Your task to perform on an android device: open app "Paramount+ | Peak Streaming" (install if not already installed) Image 0: 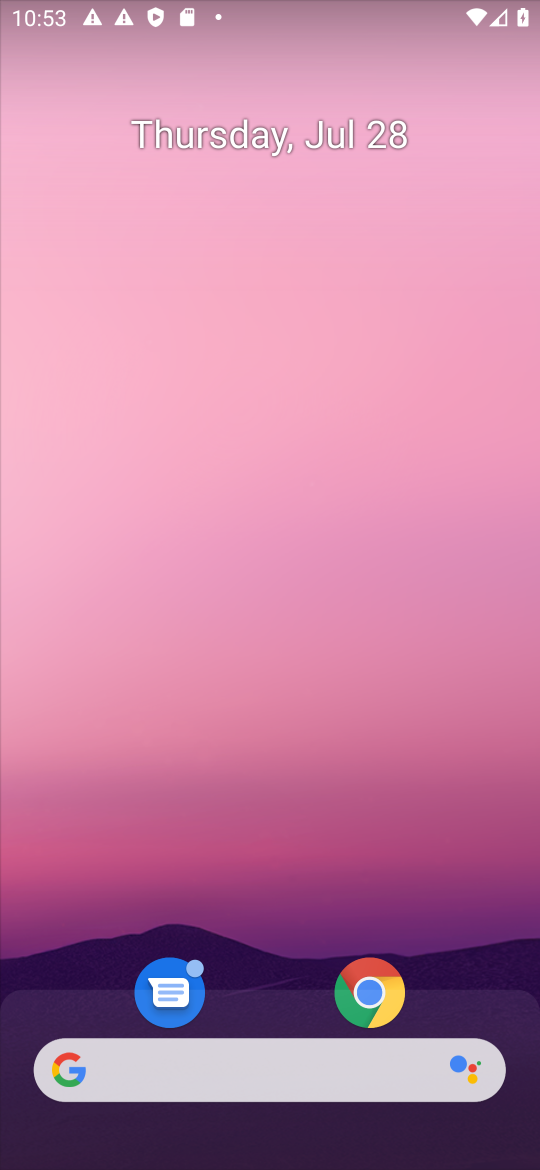
Step 0: drag from (203, 1077) to (310, 2)
Your task to perform on an android device: open app "Paramount+ | Peak Streaming" (install if not already installed) Image 1: 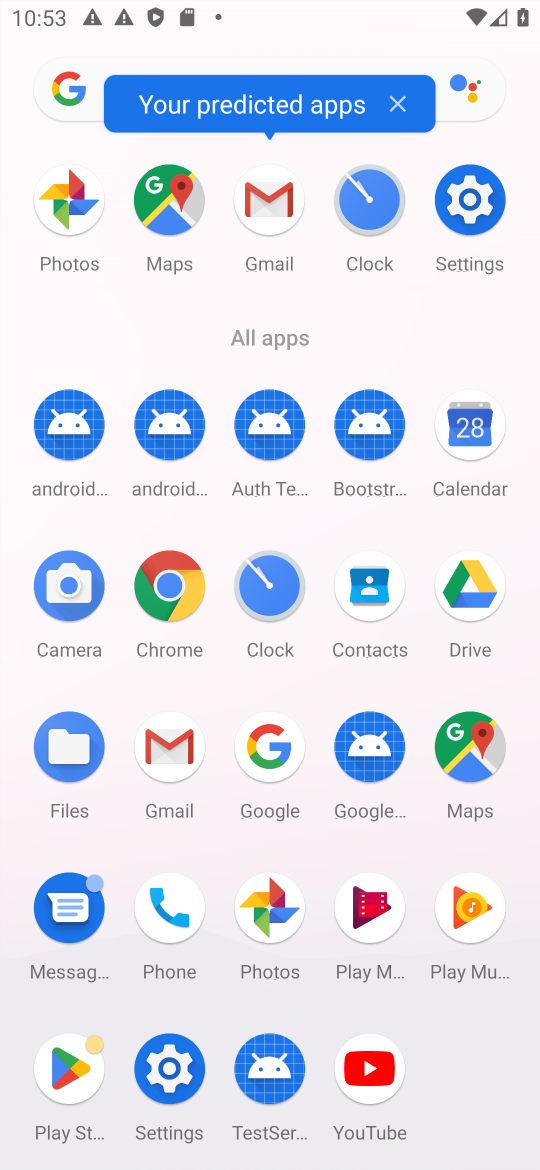
Step 1: click (69, 1076)
Your task to perform on an android device: open app "Paramount+ | Peak Streaming" (install if not already installed) Image 2: 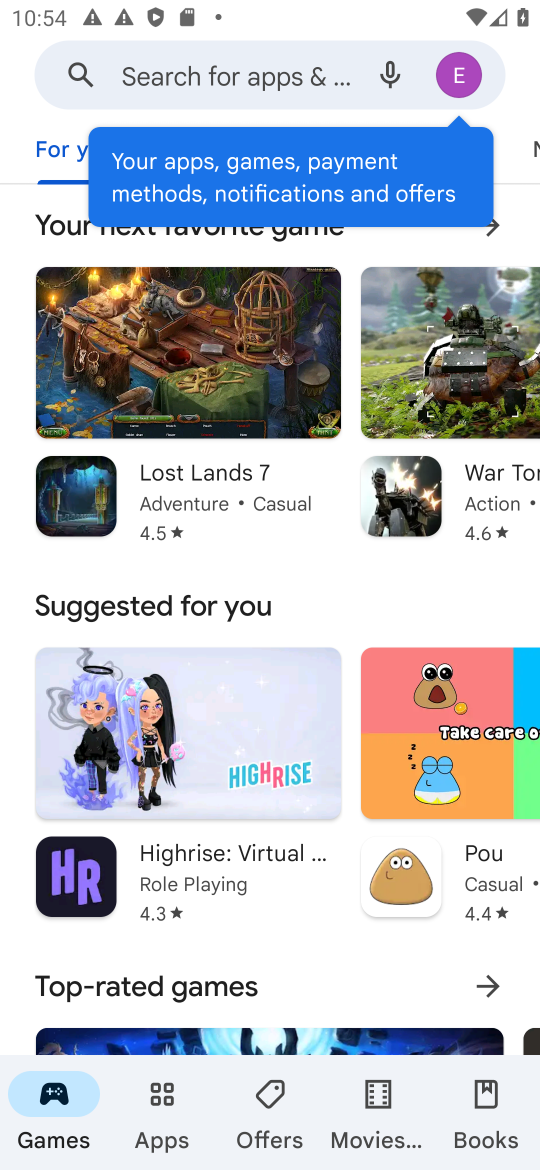
Step 2: click (304, 81)
Your task to perform on an android device: open app "Paramount+ | Peak Streaming" (install if not already installed) Image 3: 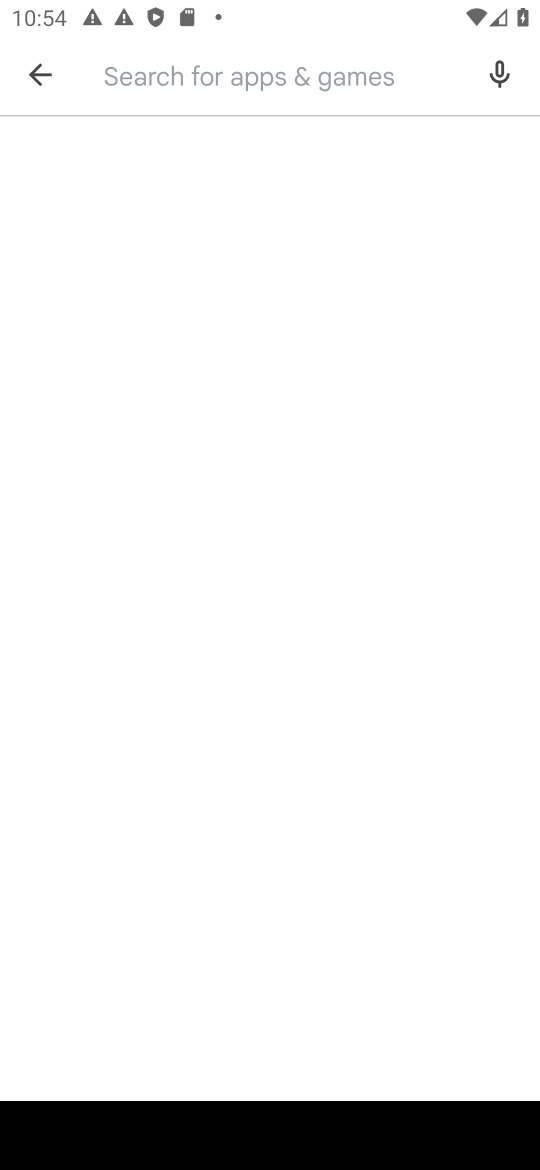
Step 3: type "Paramount+ | Peak Streaming"
Your task to perform on an android device: open app "Paramount+ | Peak Streaming" (install if not already installed) Image 4: 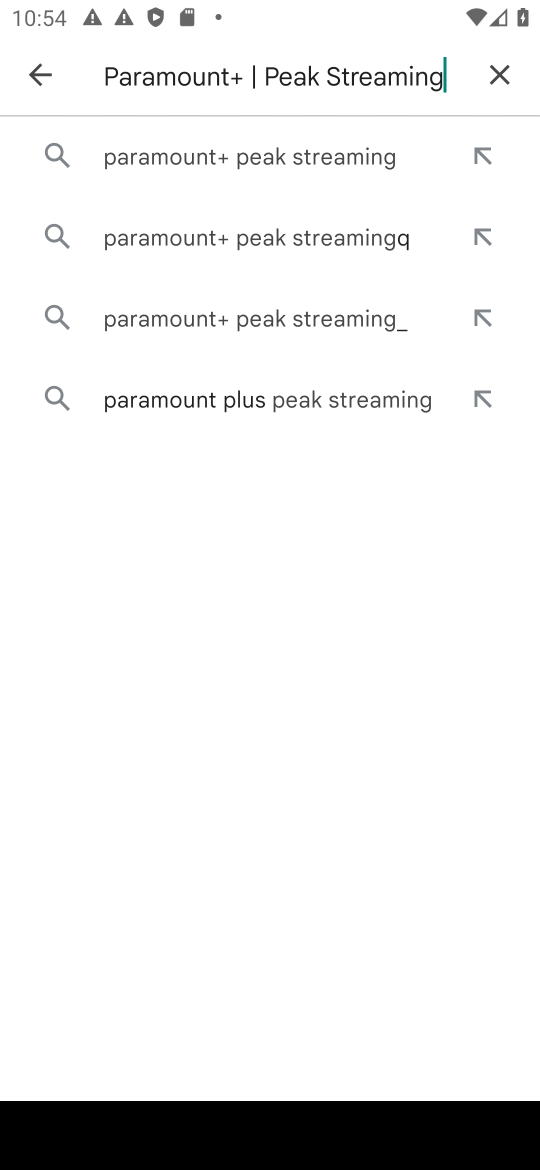
Step 4: click (276, 148)
Your task to perform on an android device: open app "Paramount+ | Peak Streaming" (install if not already installed) Image 5: 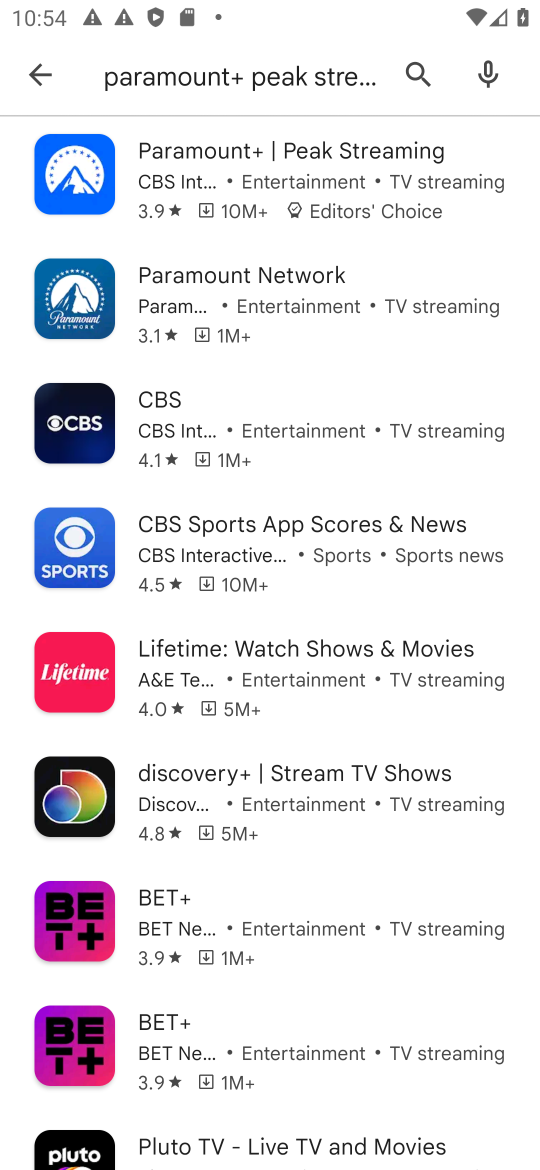
Step 5: click (311, 165)
Your task to perform on an android device: open app "Paramount+ | Peak Streaming" (install if not already installed) Image 6: 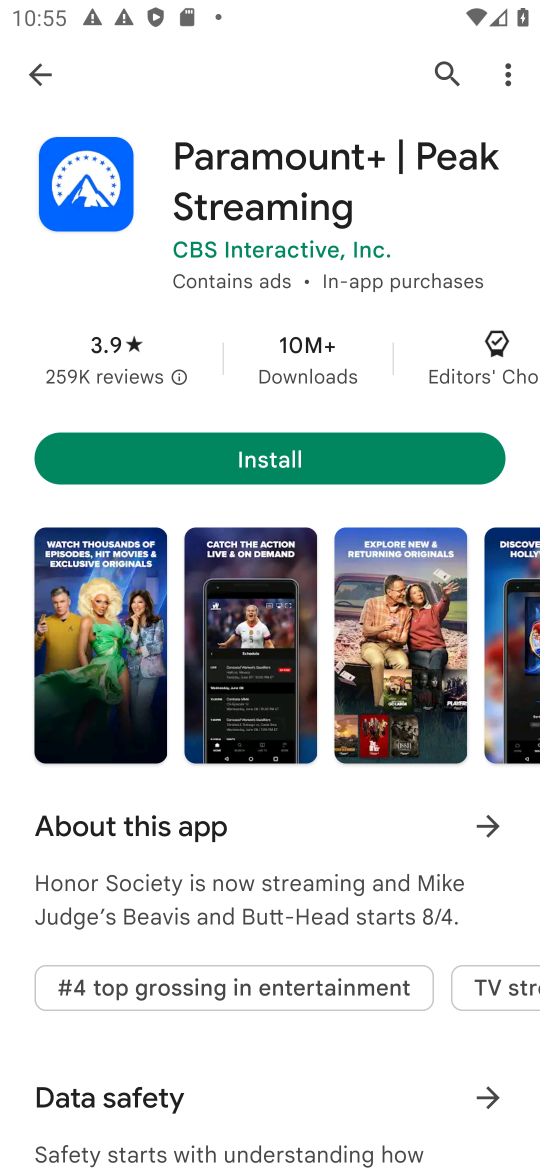
Step 6: click (268, 452)
Your task to perform on an android device: open app "Paramount+ | Peak Streaming" (install if not already installed) Image 7: 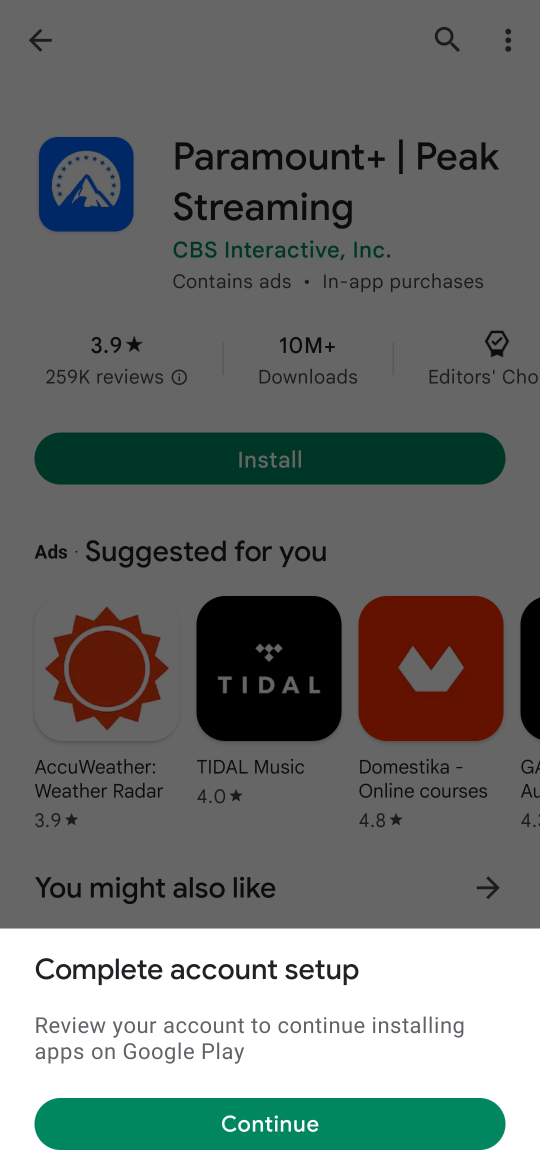
Step 7: click (234, 1121)
Your task to perform on an android device: open app "Paramount+ | Peak Streaming" (install if not already installed) Image 8: 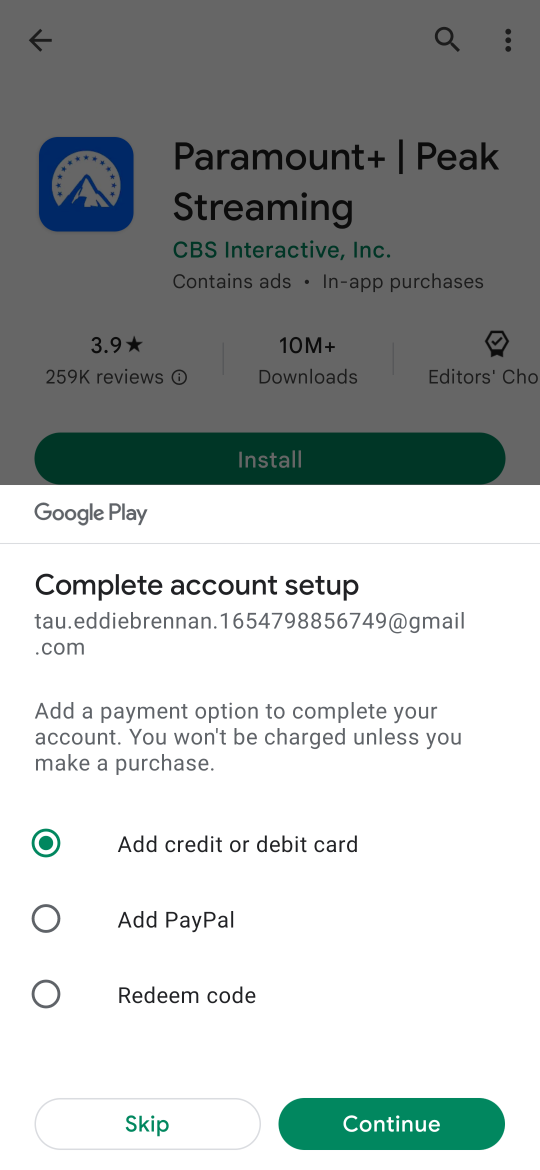
Step 8: click (149, 1120)
Your task to perform on an android device: open app "Paramount+ | Peak Streaming" (install if not already installed) Image 9: 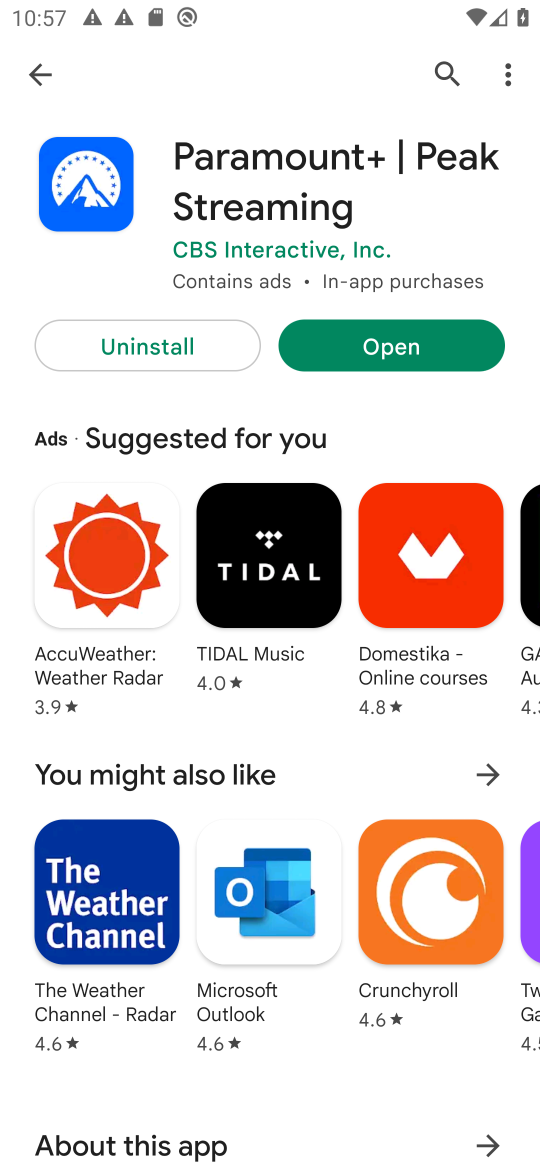
Step 9: click (415, 336)
Your task to perform on an android device: open app "Paramount+ | Peak Streaming" (install if not already installed) Image 10: 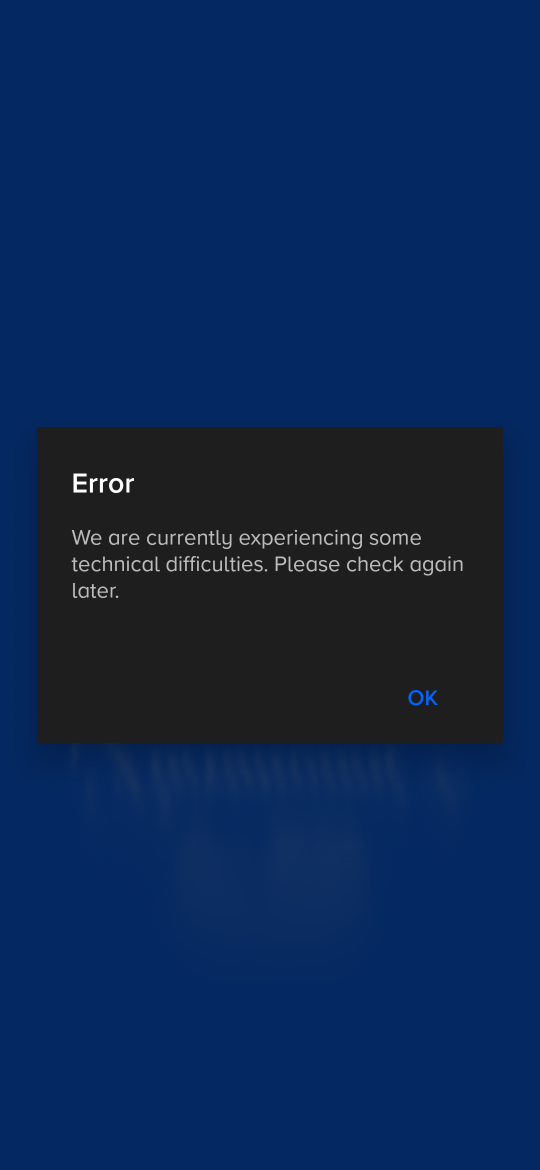
Step 10: task complete